Your task to perform on an android device: turn vacation reply on in the gmail app Image 0: 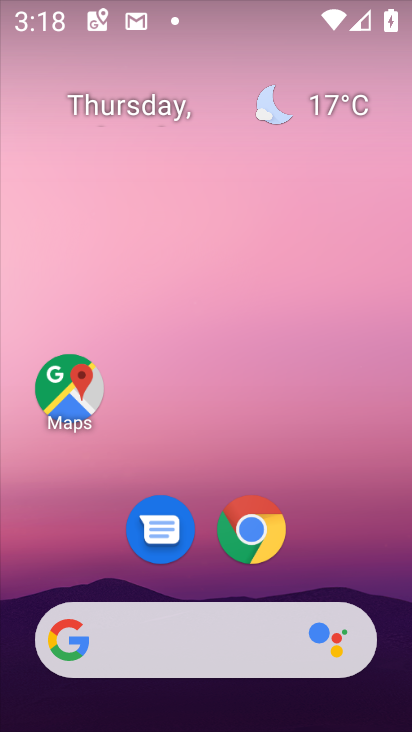
Step 0: drag from (191, 597) to (196, 113)
Your task to perform on an android device: turn vacation reply on in the gmail app Image 1: 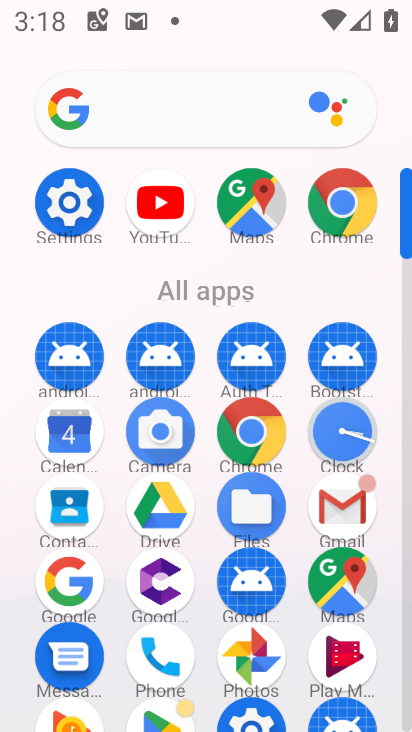
Step 1: click (331, 511)
Your task to perform on an android device: turn vacation reply on in the gmail app Image 2: 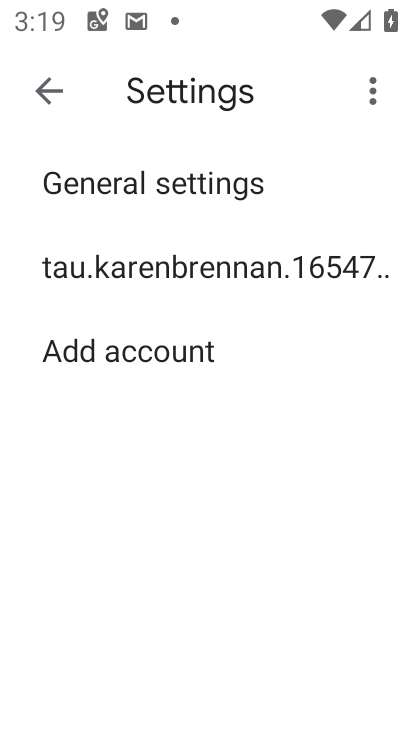
Step 2: click (211, 275)
Your task to perform on an android device: turn vacation reply on in the gmail app Image 3: 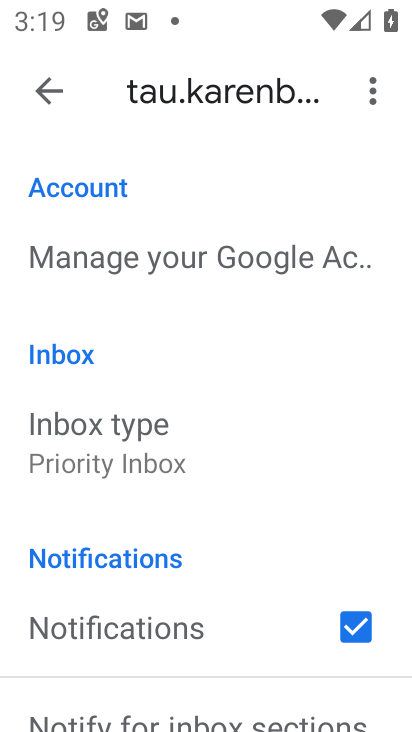
Step 3: drag from (182, 583) to (161, 213)
Your task to perform on an android device: turn vacation reply on in the gmail app Image 4: 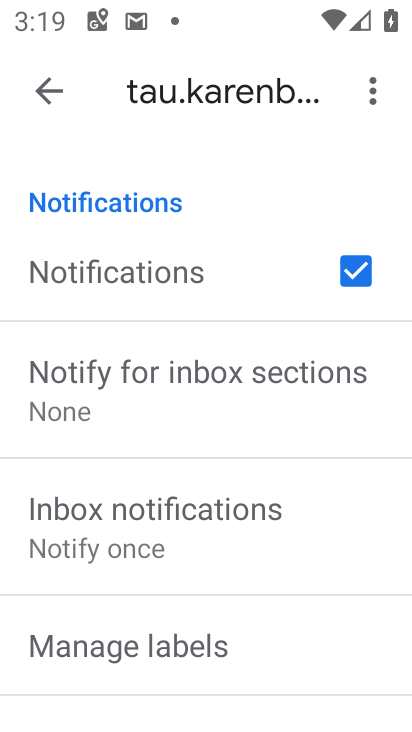
Step 4: drag from (216, 663) to (198, 287)
Your task to perform on an android device: turn vacation reply on in the gmail app Image 5: 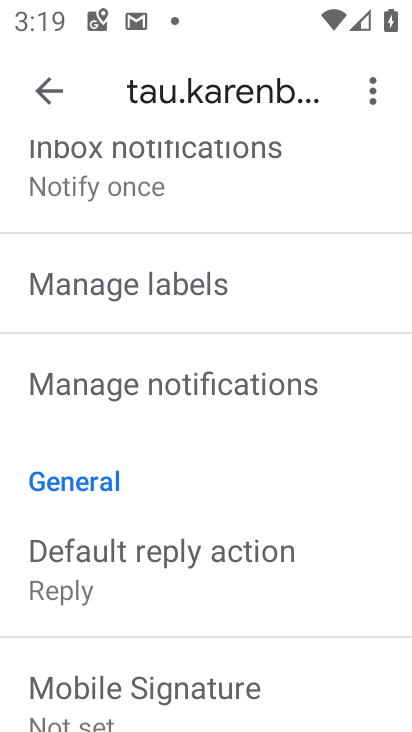
Step 5: drag from (195, 593) to (192, 272)
Your task to perform on an android device: turn vacation reply on in the gmail app Image 6: 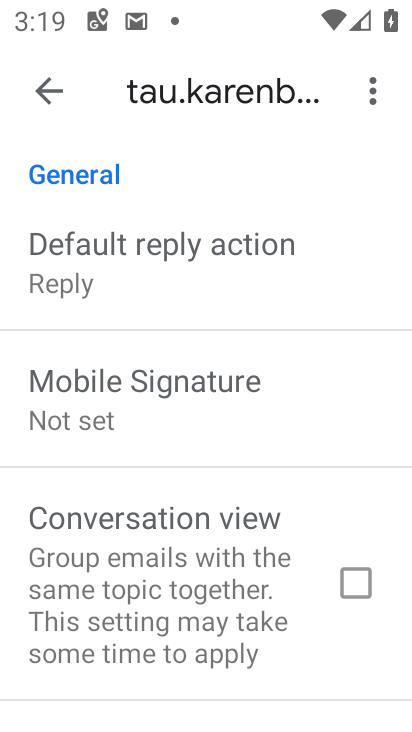
Step 6: drag from (186, 639) to (138, 144)
Your task to perform on an android device: turn vacation reply on in the gmail app Image 7: 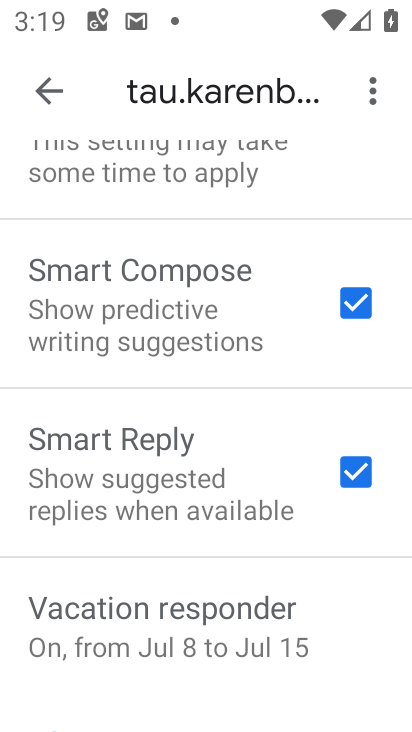
Step 7: click (175, 638)
Your task to perform on an android device: turn vacation reply on in the gmail app Image 8: 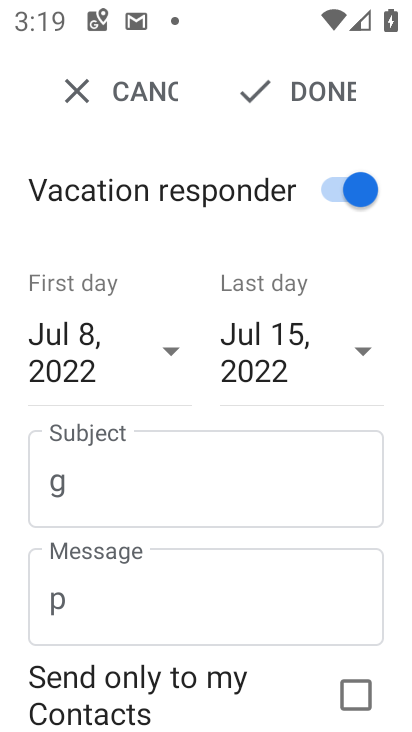
Step 8: task complete